Your task to perform on an android device: turn off notifications settings in the gmail app Image 0: 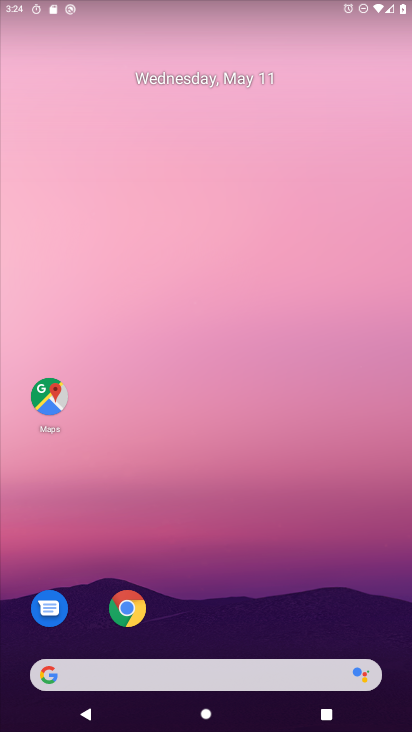
Step 0: drag from (238, 560) to (245, 78)
Your task to perform on an android device: turn off notifications settings in the gmail app Image 1: 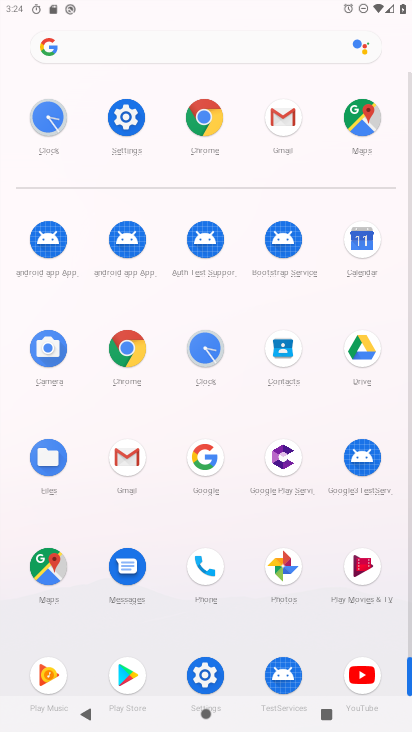
Step 1: click (123, 468)
Your task to perform on an android device: turn off notifications settings in the gmail app Image 2: 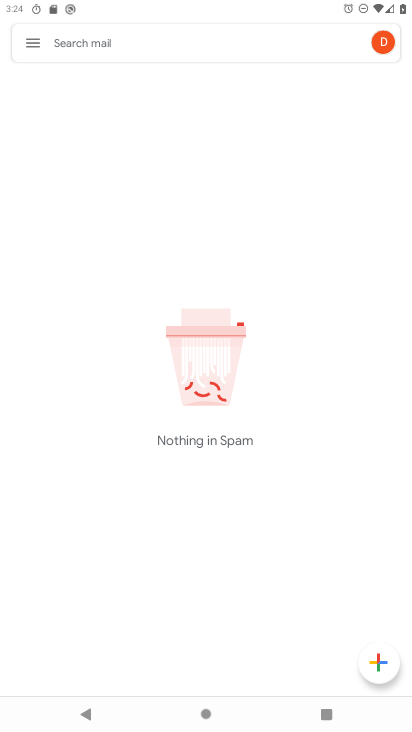
Step 2: click (39, 37)
Your task to perform on an android device: turn off notifications settings in the gmail app Image 3: 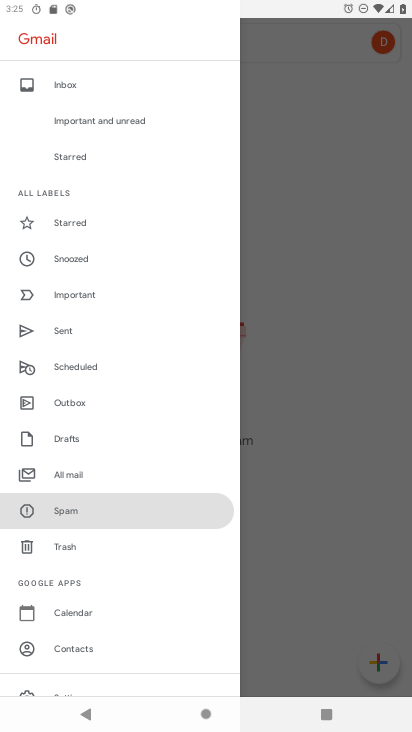
Step 3: drag from (101, 607) to (143, 315)
Your task to perform on an android device: turn off notifications settings in the gmail app Image 4: 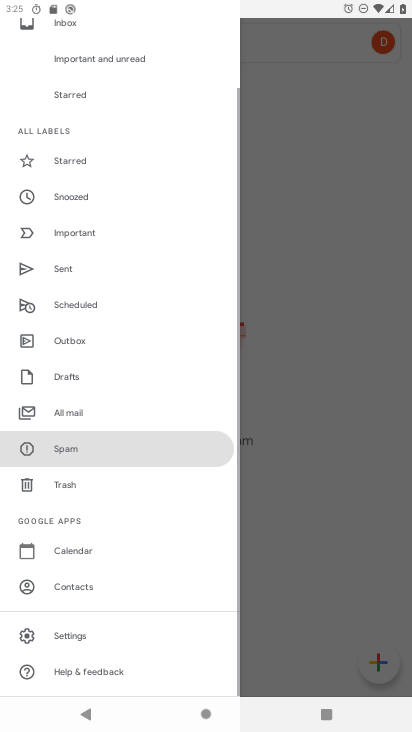
Step 4: click (84, 643)
Your task to perform on an android device: turn off notifications settings in the gmail app Image 5: 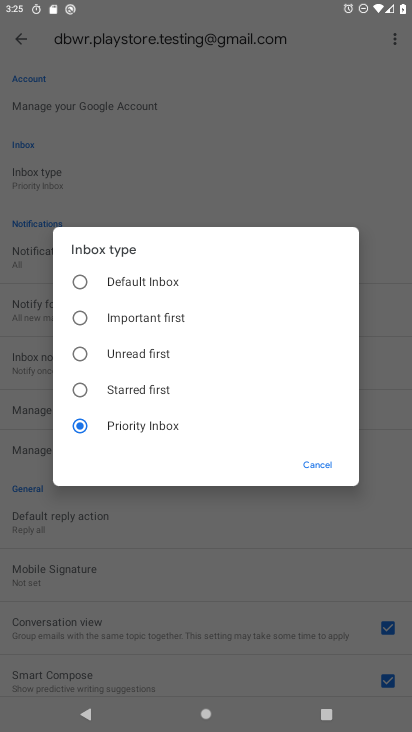
Step 5: click (315, 464)
Your task to perform on an android device: turn off notifications settings in the gmail app Image 6: 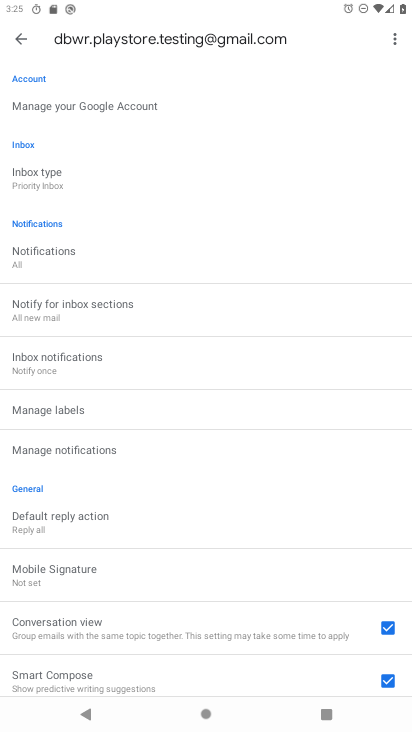
Step 6: drag from (111, 522) to (171, 222)
Your task to perform on an android device: turn off notifications settings in the gmail app Image 7: 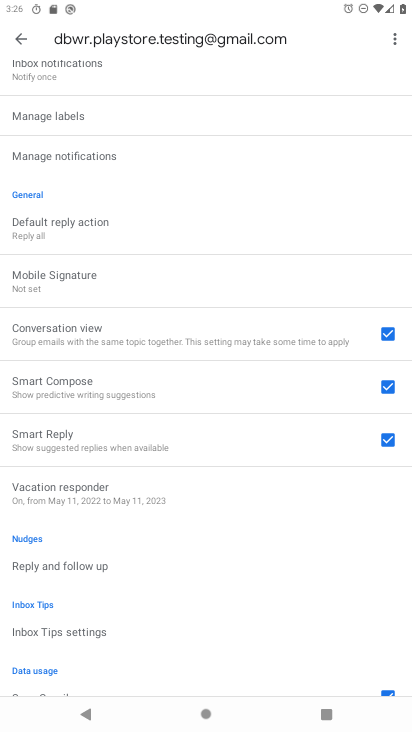
Step 7: click (75, 169)
Your task to perform on an android device: turn off notifications settings in the gmail app Image 8: 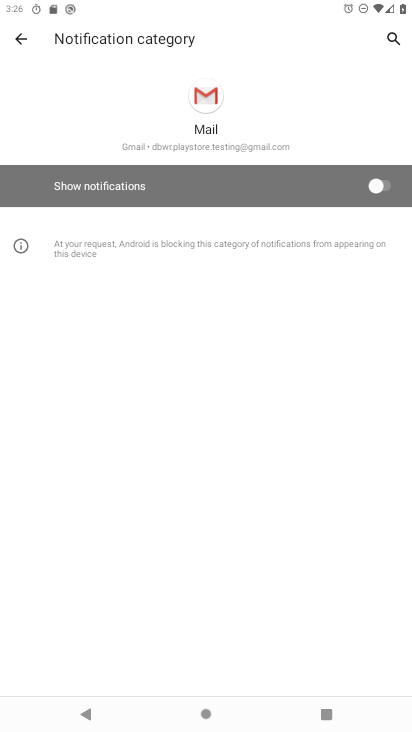
Step 8: task complete